Your task to perform on an android device: set the timer Image 0: 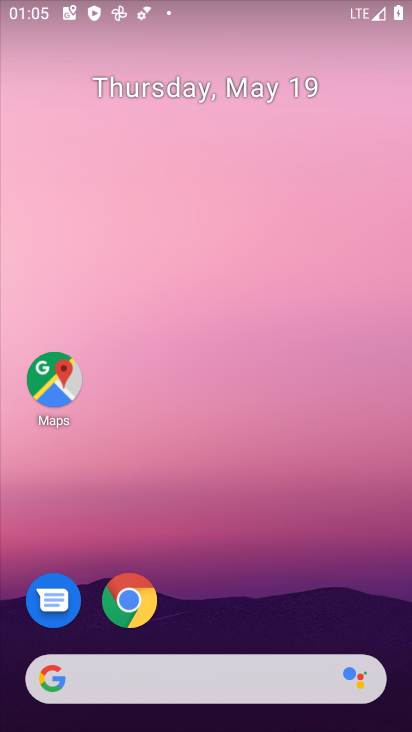
Step 0: drag from (283, 562) to (255, 103)
Your task to perform on an android device: set the timer Image 1: 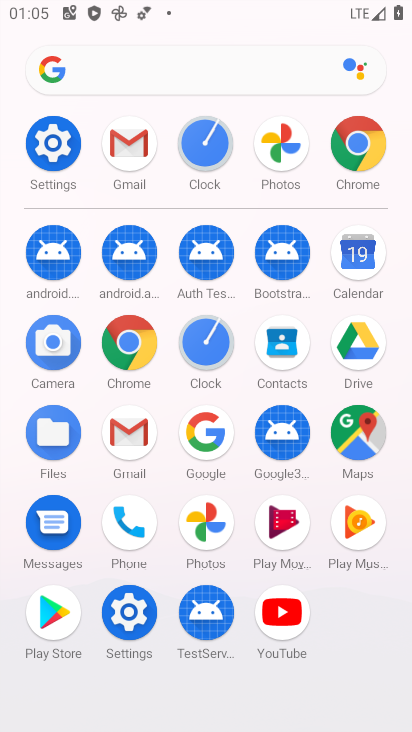
Step 1: click (196, 148)
Your task to perform on an android device: set the timer Image 2: 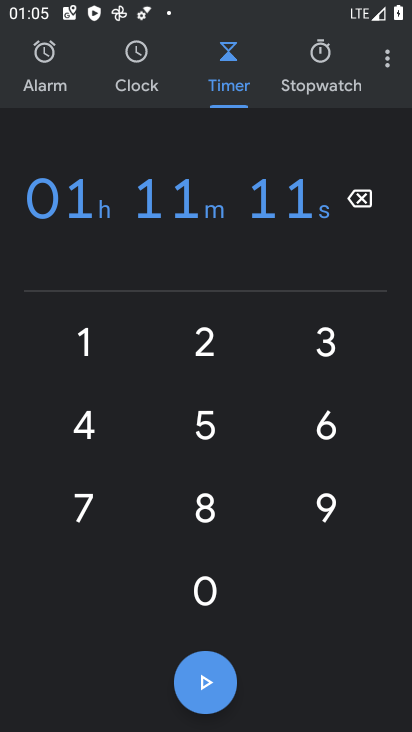
Step 2: task complete